Your task to perform on an android device: change your default location settings in chrome Image 0: 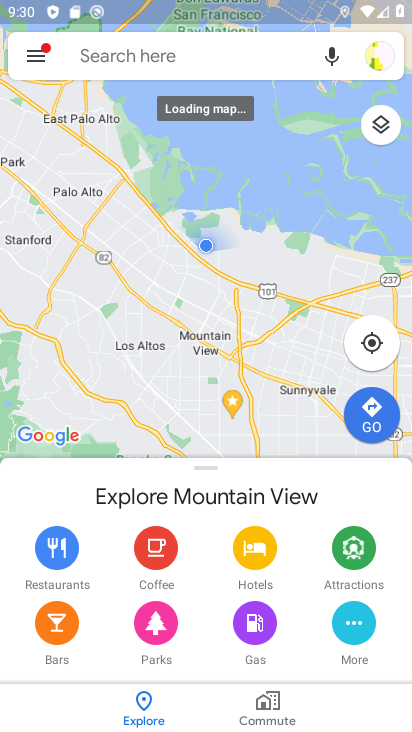
Step 0: press home button
Your task to perform on an android device: change your default location settings in chrome Image 1: 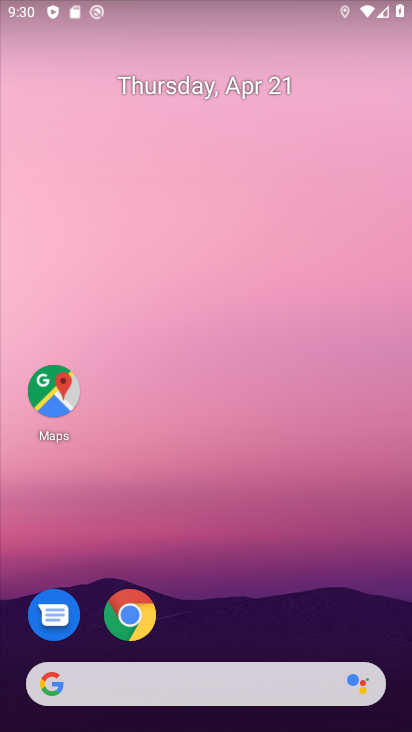
Step 1: click (125, 617)
Your task to perform on an android device: change your default location settings in chrome Image 2: 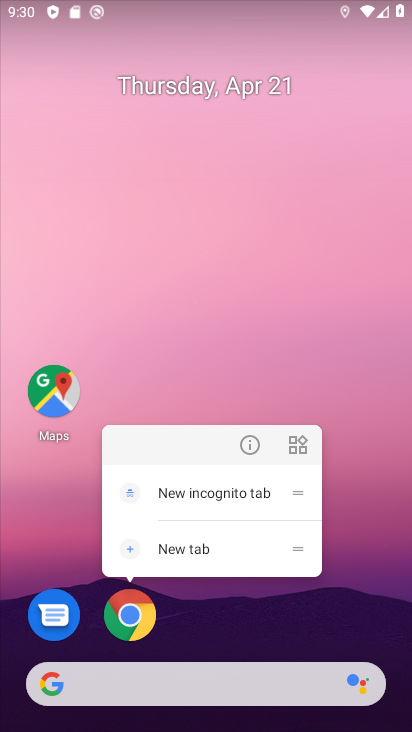
Step 2: click (125, 620)
Your task to perform on an android device: change your default location settings in chrome Image 3: 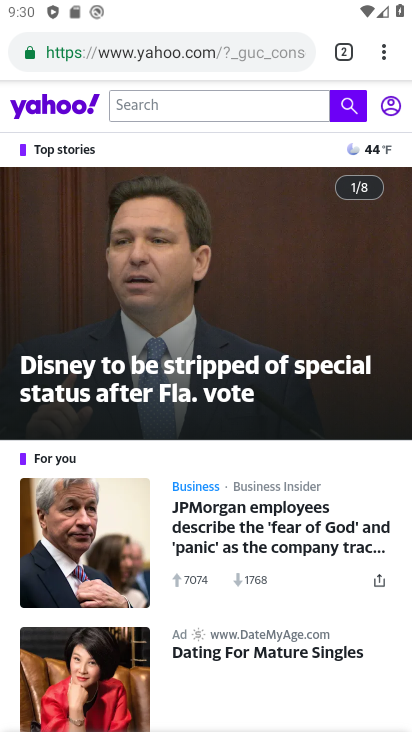
Step 3: click (382, 59)
Your task to perform on an android device: change your default location settings in chrome Image 4: 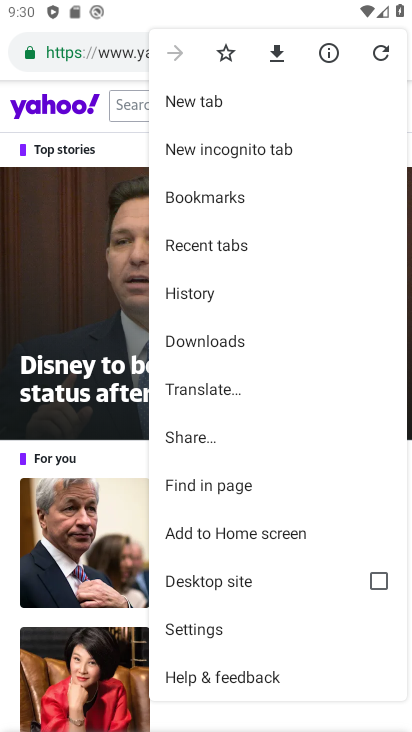
Step 4: click (200, 628)
Your task to perform on an android device: change your default location settings in chrome Image 5: 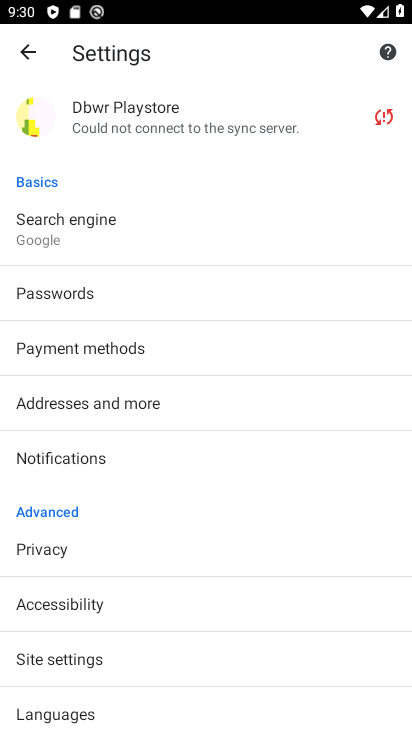
Step 5: click (119, 657)
Your task to perform on an android device: change your default location settings in chrome Image 6: 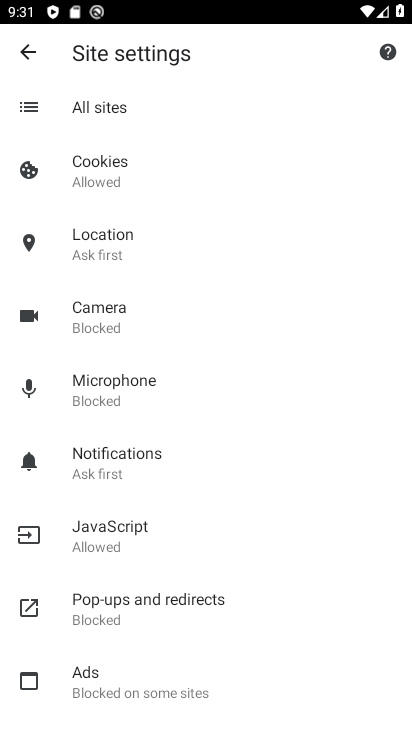
Step 6: click (108, 243)
Your task to perform on an android device: change your default location settings in chrome Image 7: 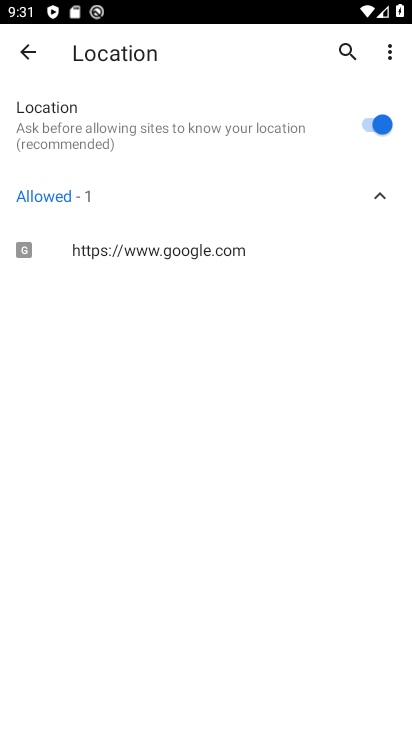
Step 7: click (365, 125)
Your task to perform on an android device: change your default location settings in chrome Image 8: 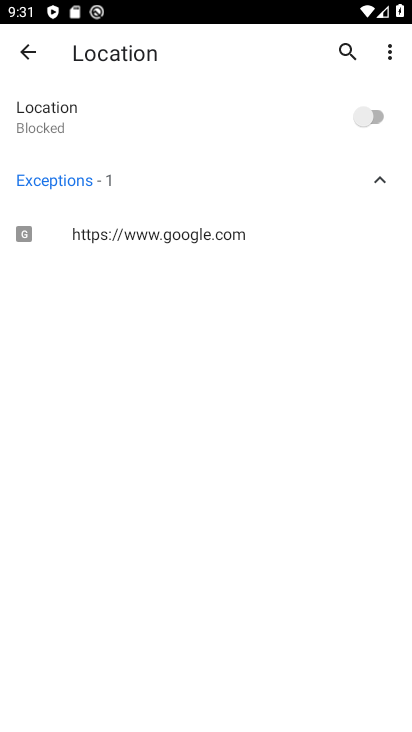
Step 8: task complete